Your task to perform on an android device: Go to display settings Image 0: 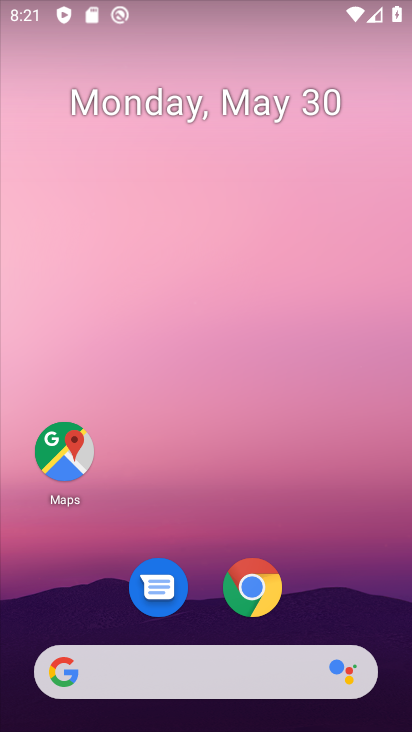
Step 0: drag from (212, 634) to (293, 10)
Your task to perform on an android device: Go to display settings Image 1: 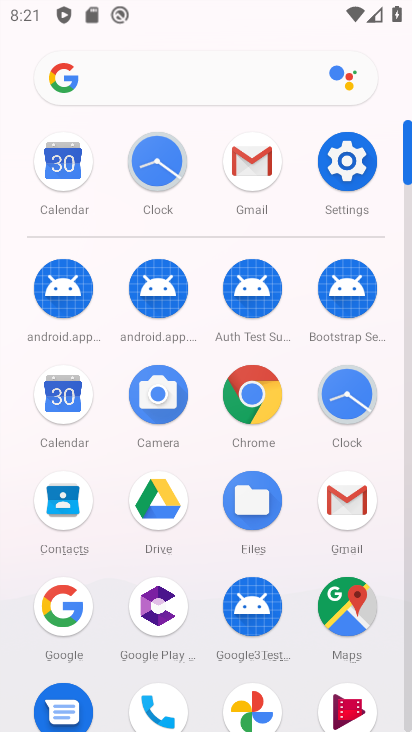
Step 1: click (345, 156)
Your task to perform on an android device: Go to display settings Image 2: 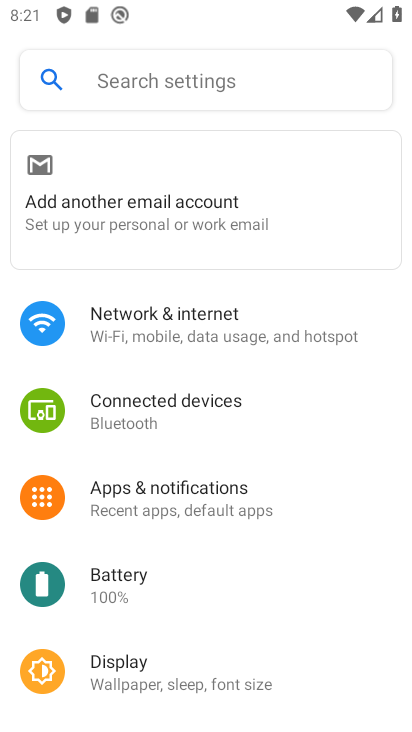
Step 2: click (165, 663)
Your task to perform on an android device: Go to display settings Image 3: 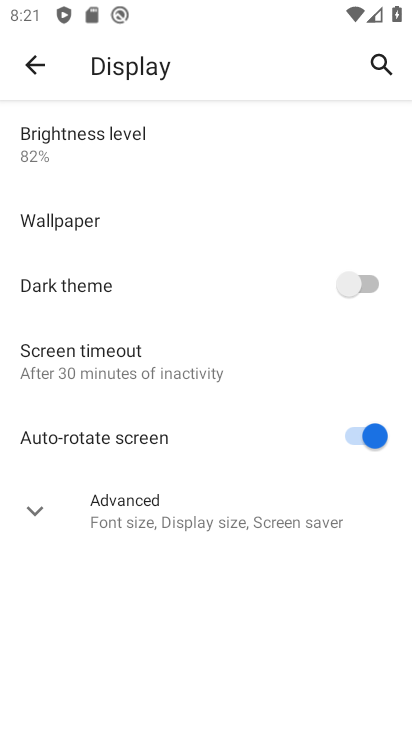
Step 3: click (33, 511)
Your task to perform on an android device: Go to display settings Image 4: 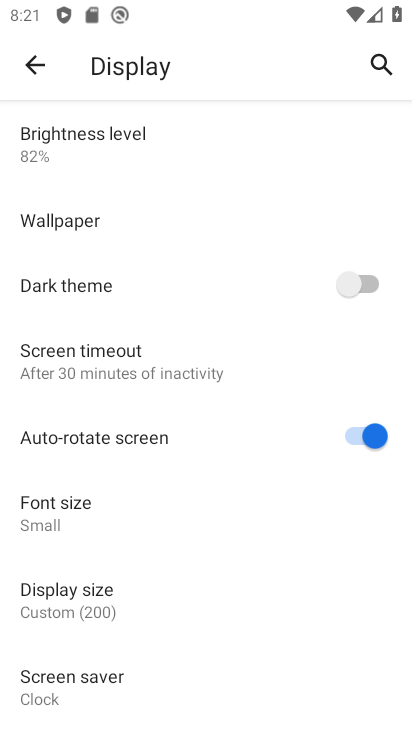
Step 4: task complete